Your task to perform on an android device: choose inbox layout in the gmail app Image 0: 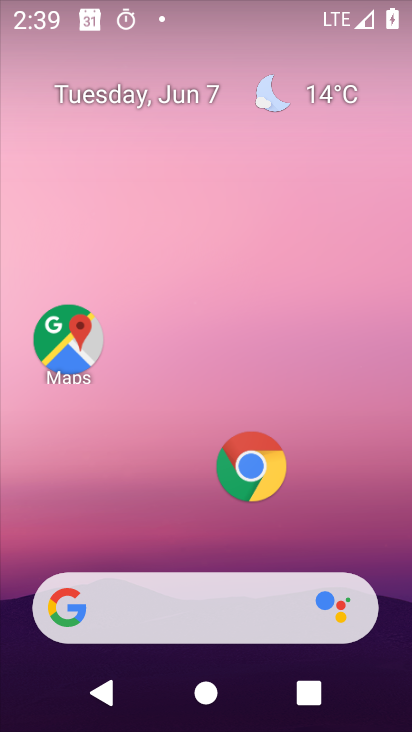
Step 0: drag from (169, 583) to (183, 92)
Your task to perform on an android device: choose inbox layout in the gmail app Image 1: 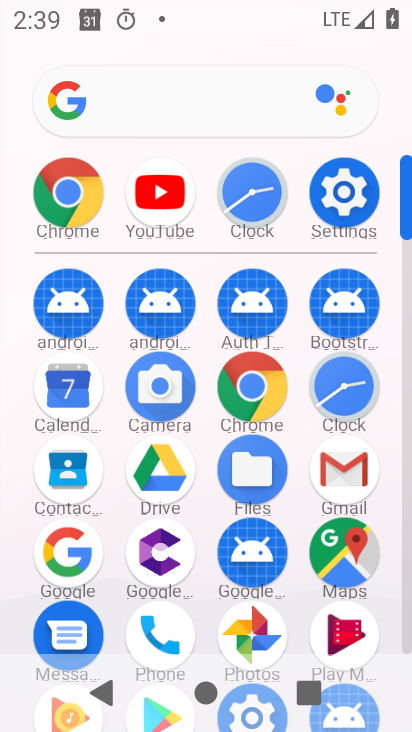
Step 1: click (351, 473)
Your task to perform on an android device: choose inbox layout in the gmail app Image 2: 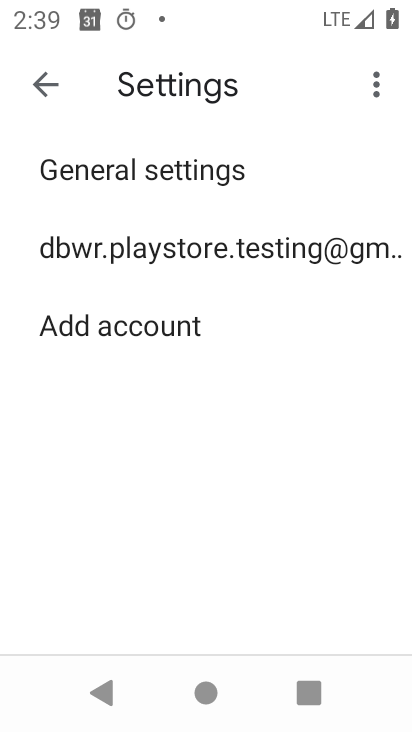
Step 2: click (175, 257)
Your task to perform on an android device: choose inbox layout in the gmail app Image 3: 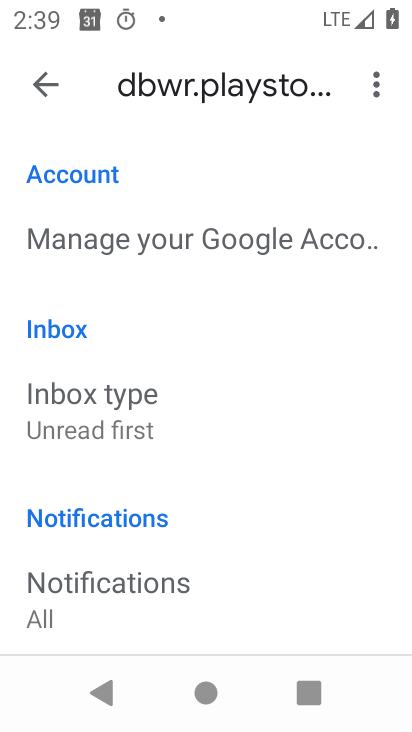
Step 3: click (124, 421)
Your task to perform on an android device: choose inbox layout in the gmail app Image 4: 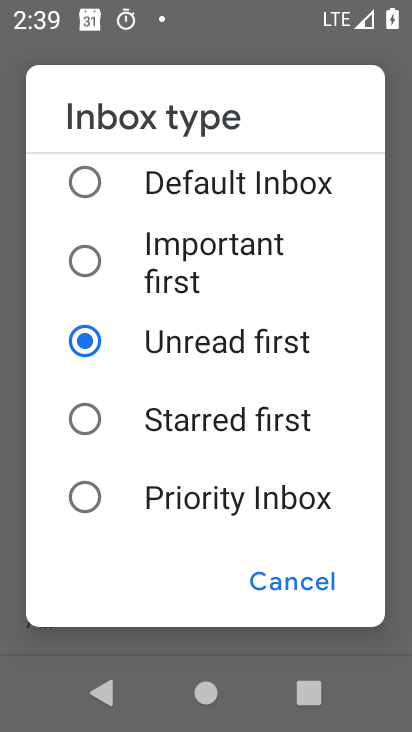
Step 4: click (227, 199)
Your task to perform on an android device: choose inbox layout in the gmail app Image 5: 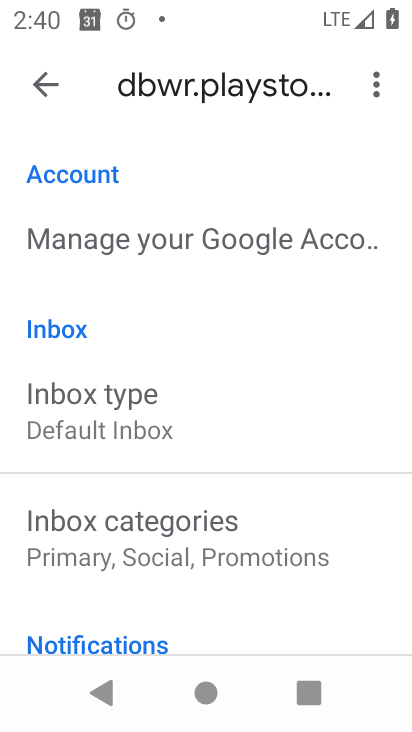
Step 5: task complete